Your task to perform on an android device: Show me the alarms in the clock app Image 0: 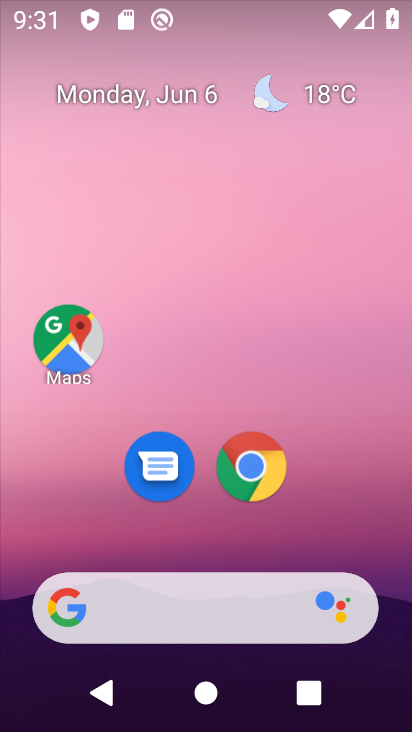
Step 0: drag from (250, 563) to (394, 394)
Your task to perform on an android device: Show me the alarms in the clock app Image 1: 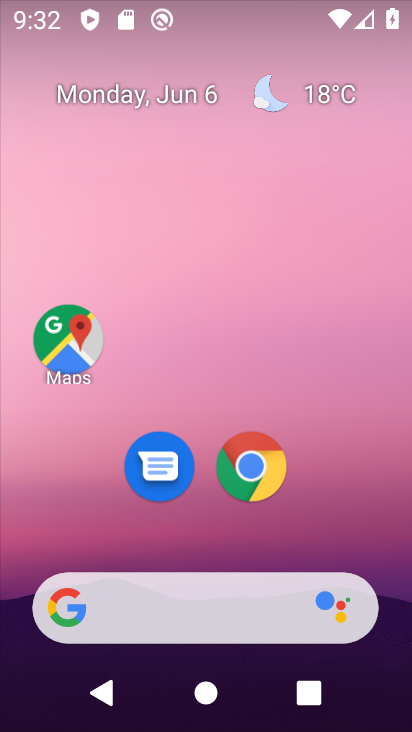
Step 1: drag from (252, 525) to (224, 20)
Your task to perform on an android device: Show me the alarms in the clock app Image 2: 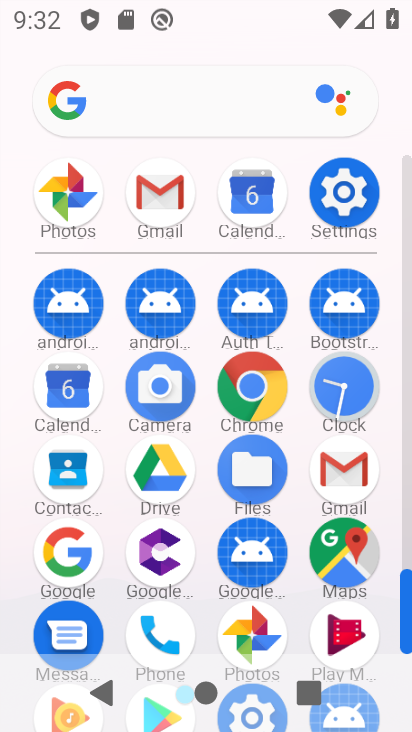
Step 2: click (353, 386)
Your task to perform on an android device: Show me the alarms in the clock app Image 3: 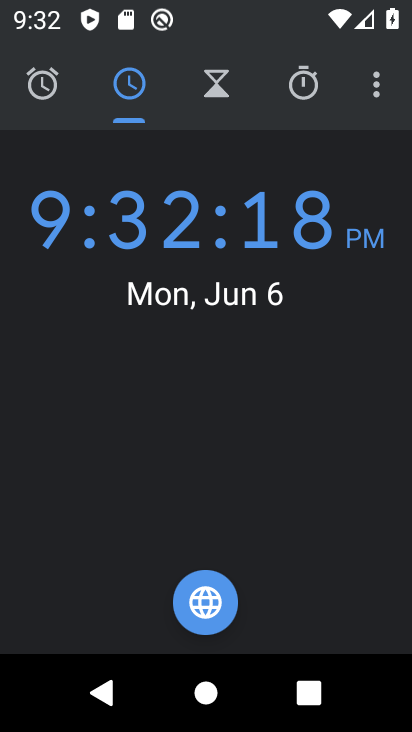
Step 3: click (51, 86)
Your task to perform on an android device: Show me the alarms in the clock app Image 4: 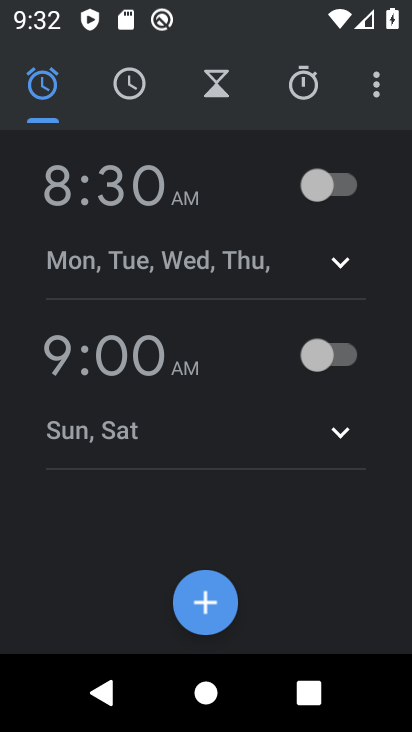
Step 4: task complete